Your task to perform on an android device: Show the shopping cart on newegg. Image 0: 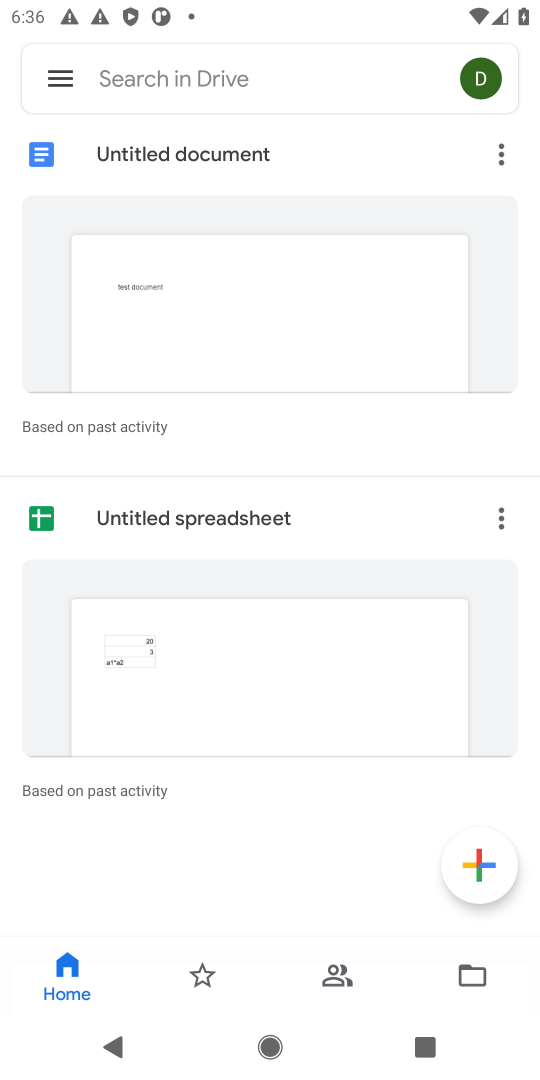
Step 0: press home button
Your task to perform on an android device: Show the shopping cart on newegg. Image 1: 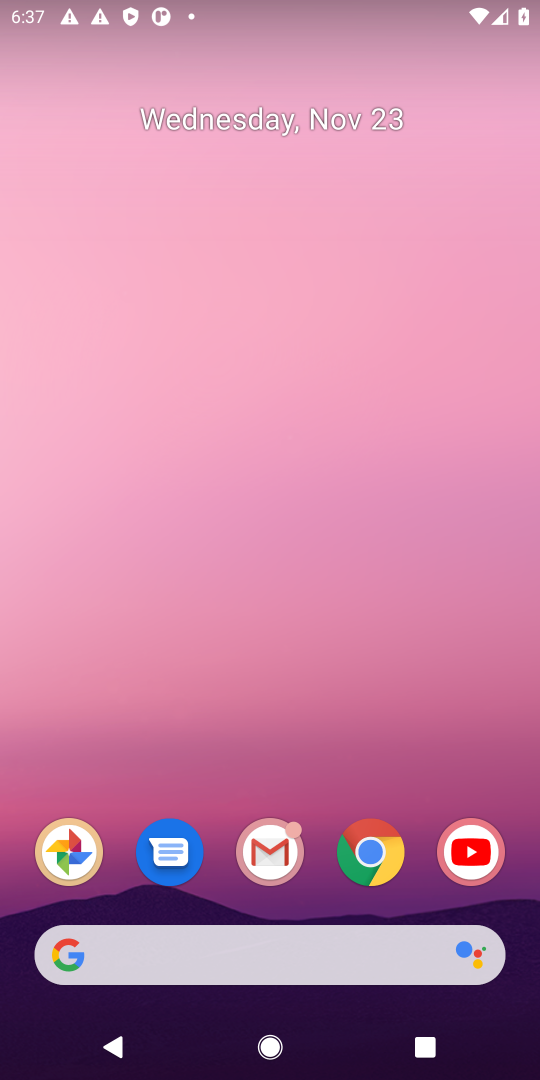
Step 1: drag from (277, 690) to (299, 40)
Your task to perform on an android device: Show the shopping cart on newegg. Image 2: 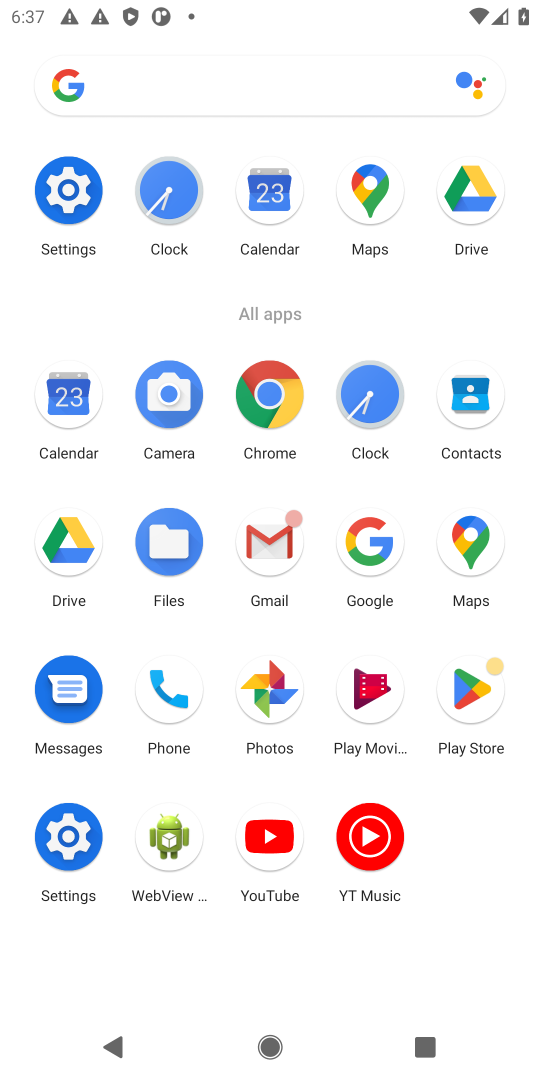
Step 2: click (268, 406)
Your task to perform on an android device: Show the shopping cart on newegg. Image 3: 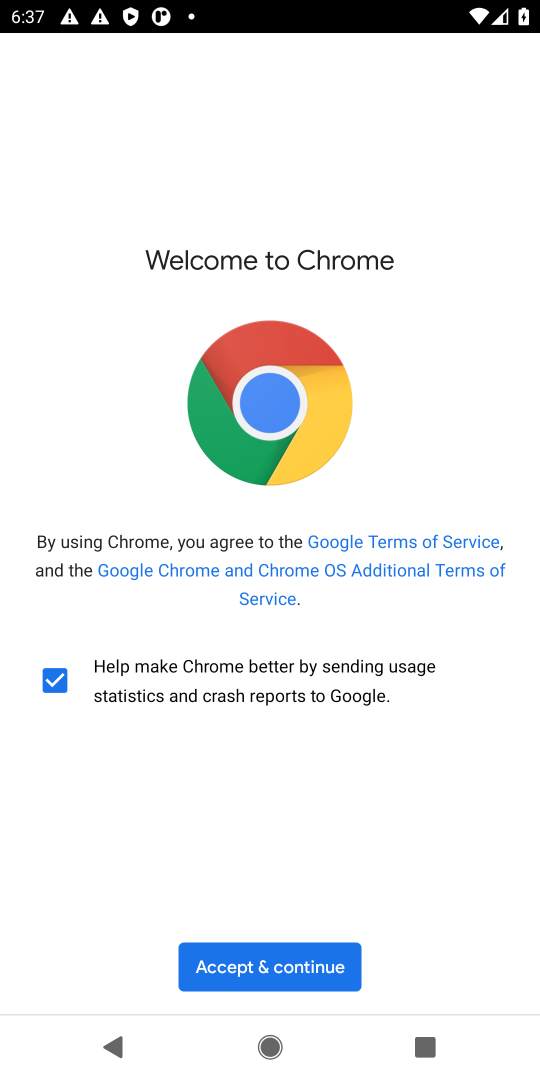
Step 3: click (254, 962)
Your task to perform on an android device: Show the shopping cart on newegg. Image 4: 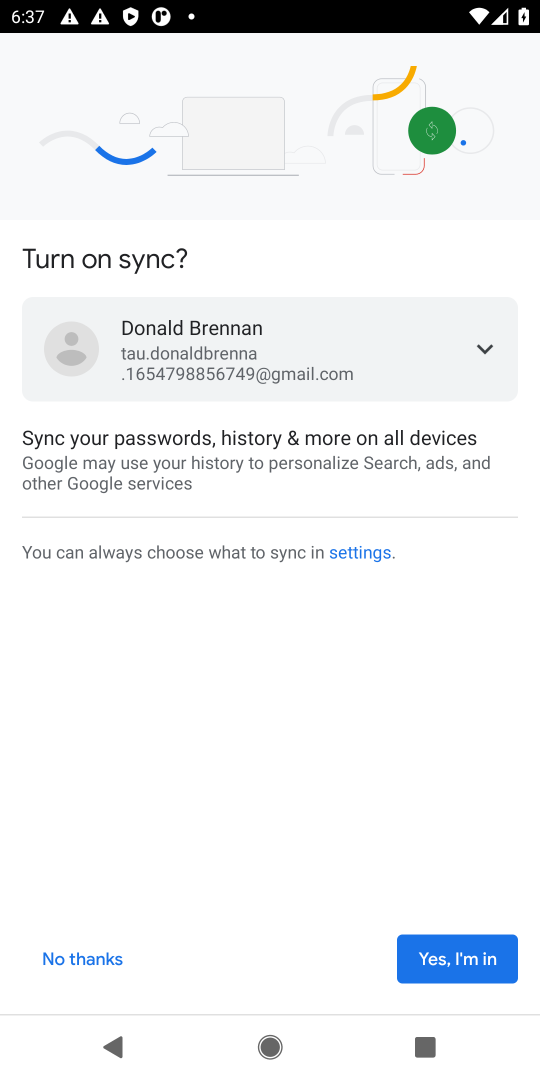
Step 4: click (462, 959)
Your task to perform on an android device: Show the shopping cart on newegg. Image 5: 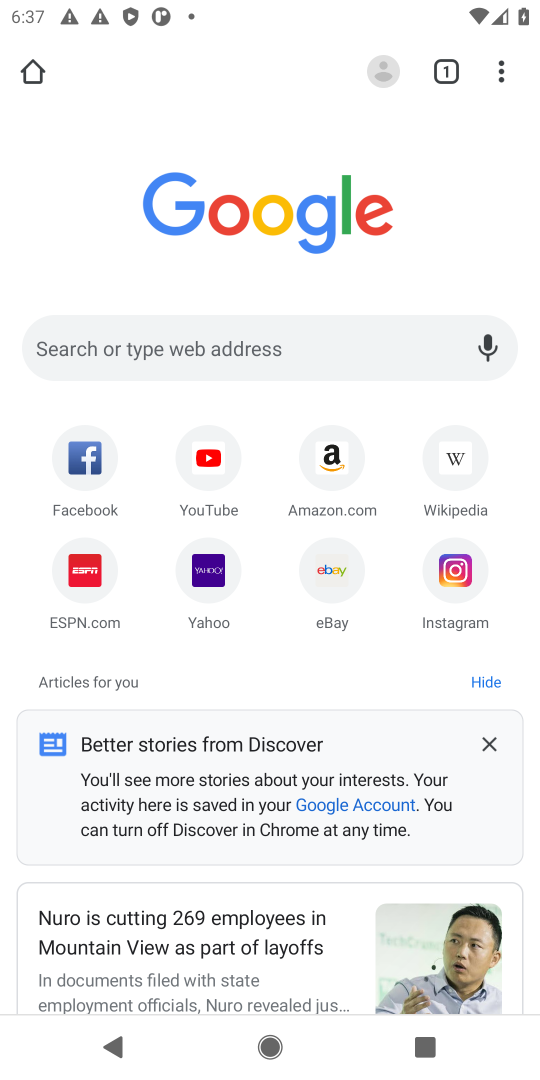
Step 5: click (169, 352)
Your task to perform on an android device: Show the shopping cart on newegg. Image 6: 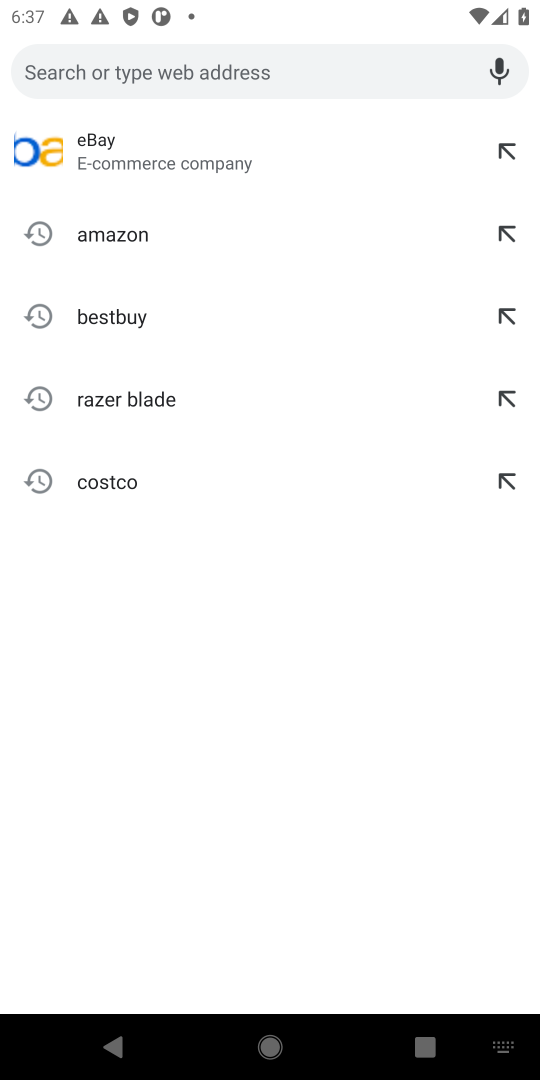
Step 6: type "newegg"
Your task to perform on an android device: Show the shopping cart on newegg. Image 7: 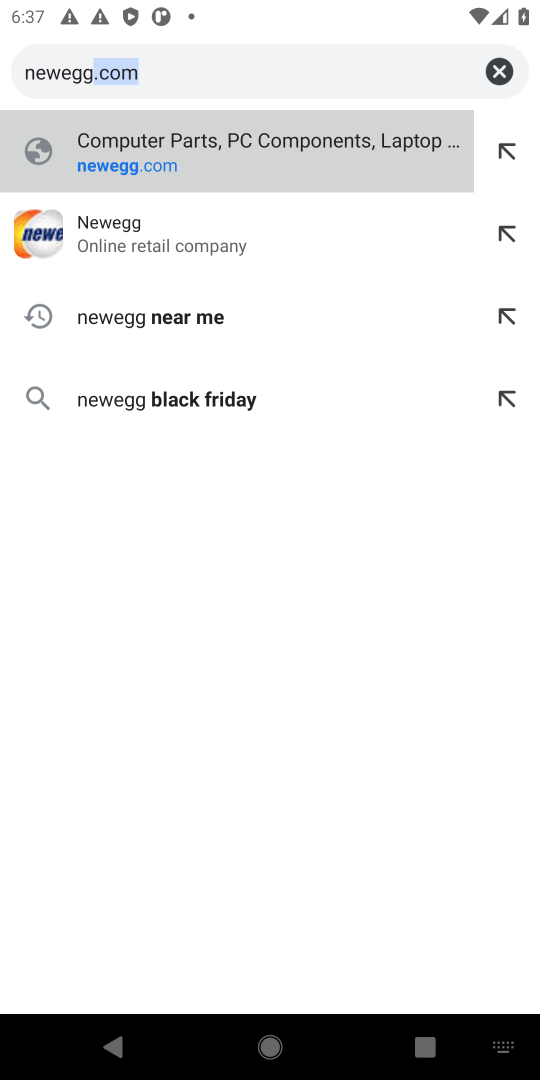
Step 7: click (194, 166)
Your task to perform on an android device: Show the shopping cart on newegg. Image 8: 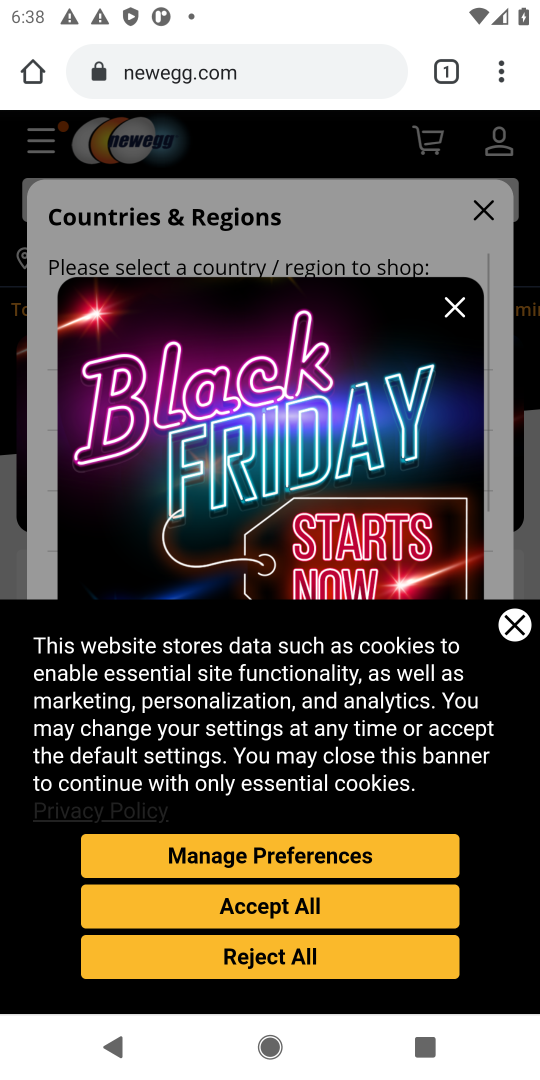
Step 8: click (509, 622)
Your task to perform on an android device: Show the shopping cart on newegg. Image 9: 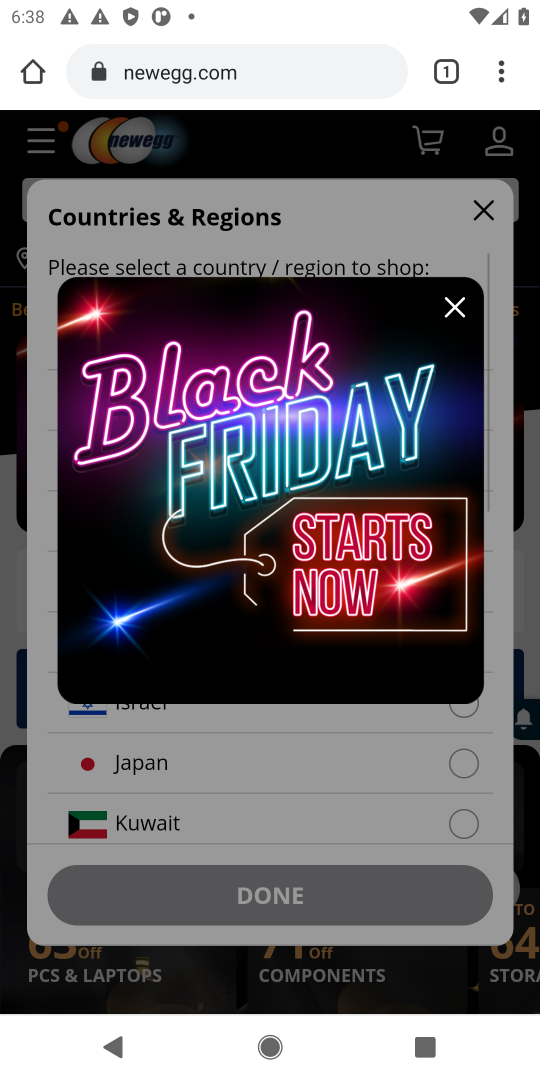
Step 9: click (456, 310)
Your task to perform on an android device: Show the shopping cart on newegg. Image 10: 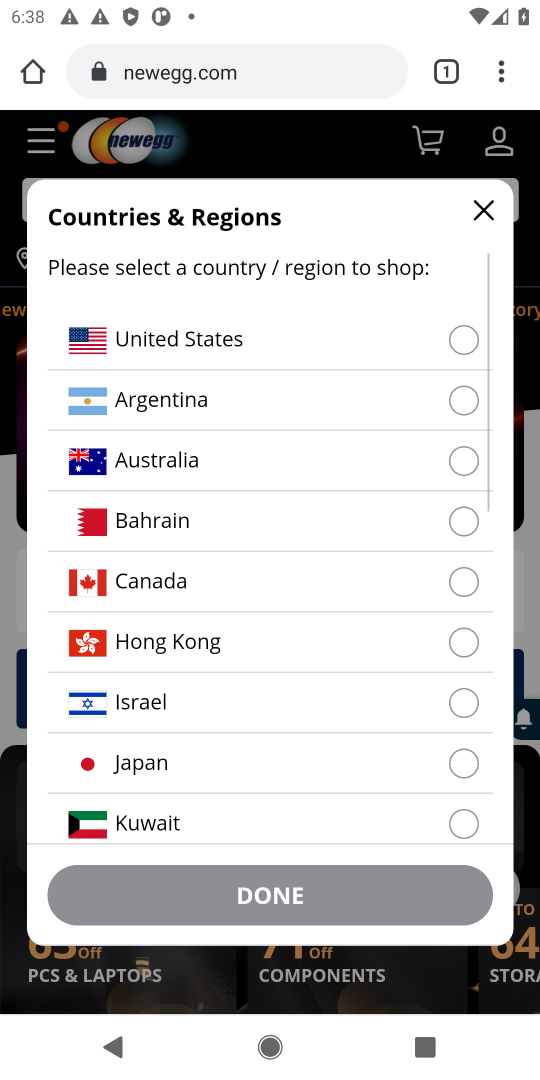
Step 10: click (461, 344)
Your task to perform on an android device: Show the shopping cart on newegg. Image 11: 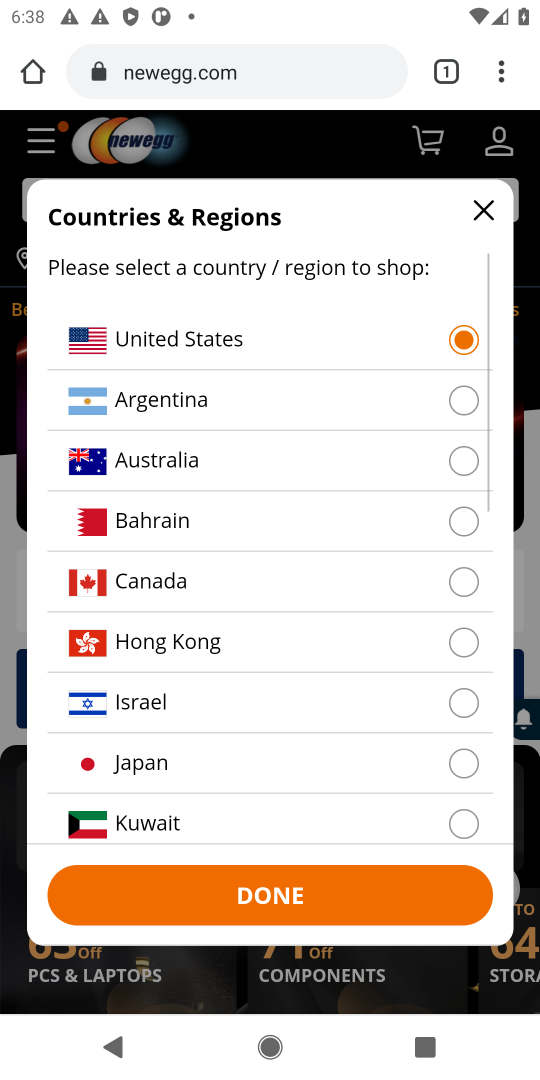
Step 11: click (268, 886)
Your task to perform on an android device: Show the shopping cart on newegg. Image 12: 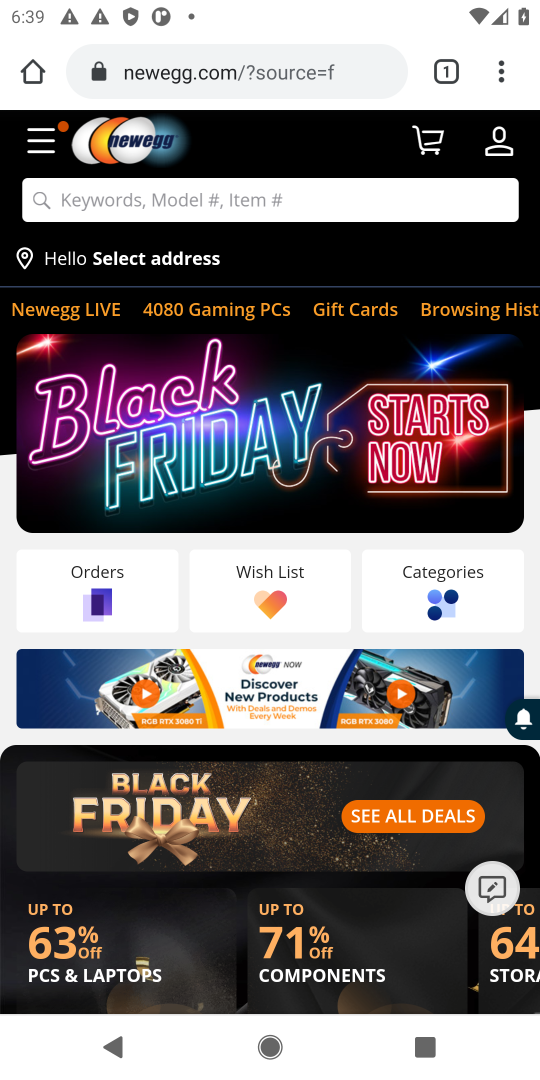
Step 12: click (435, 138)
Your task to perform on an android device: Show the shopping cart on newegg. Image 13: 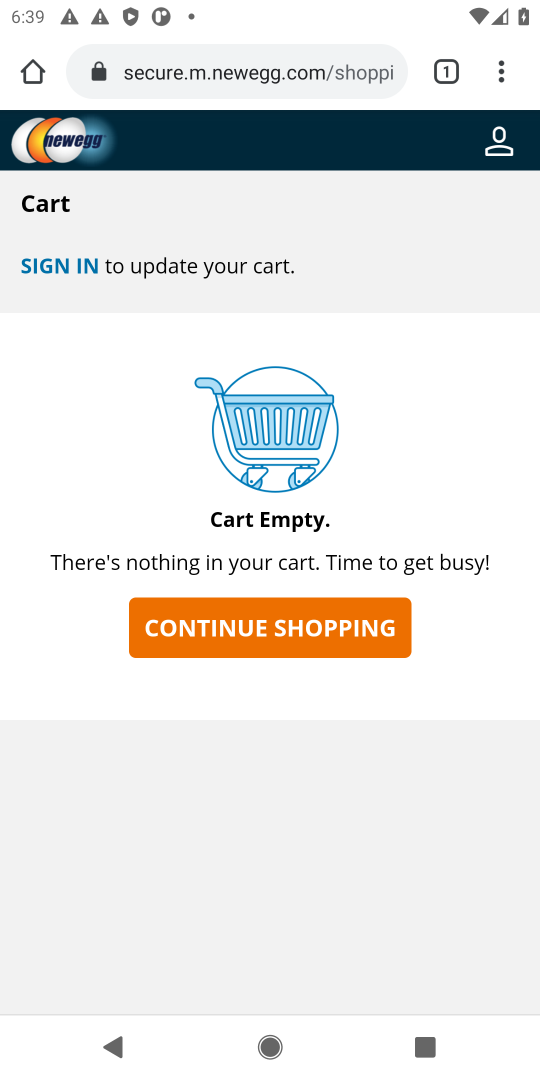
Step 13: task complete